Your task to perform on an android device: Search for seafood restaurants on Google Maps Image 0: 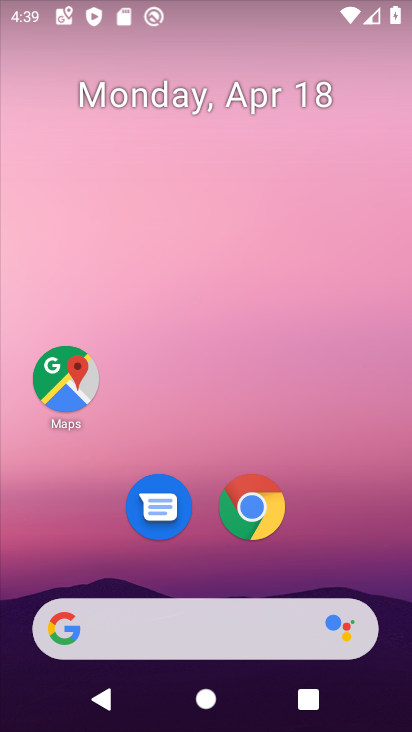
Step 0: drag from (306, 593) to (298, 74)
Your task to perform on an android device: Search for seafood restaurants on Google Maps Image 1: 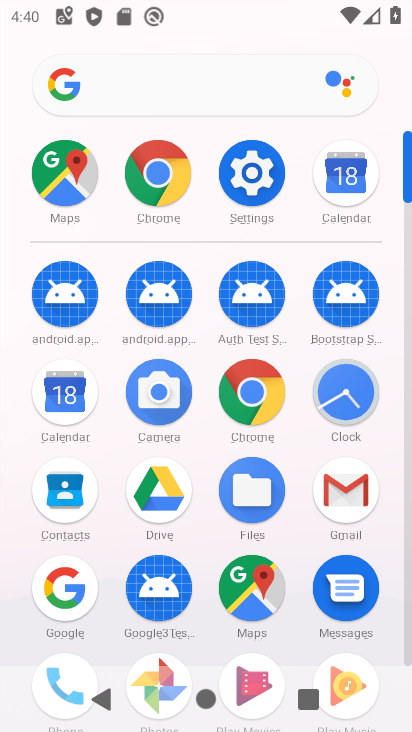
Step 1: click (268, 592)
Your task to perform on an android device: Search for seafood restaurants on Google Maps Image 2: 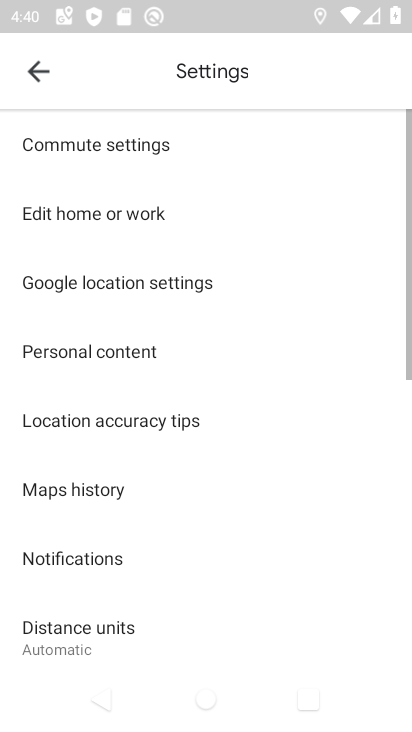
Step 2: click (39, 75)
Your task to perform on an android device: Search for seafood restaurants on Google Maps Image 3: 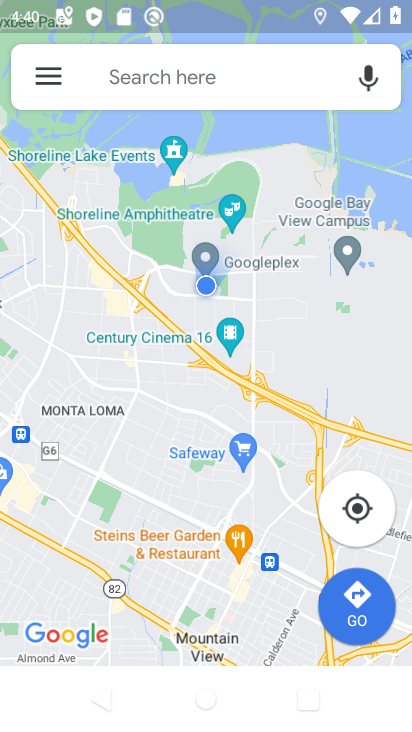
Step 3: click (205, 87)
Your task to perform on an android device: Search for seafood restaurants on Google Maps Image 4: 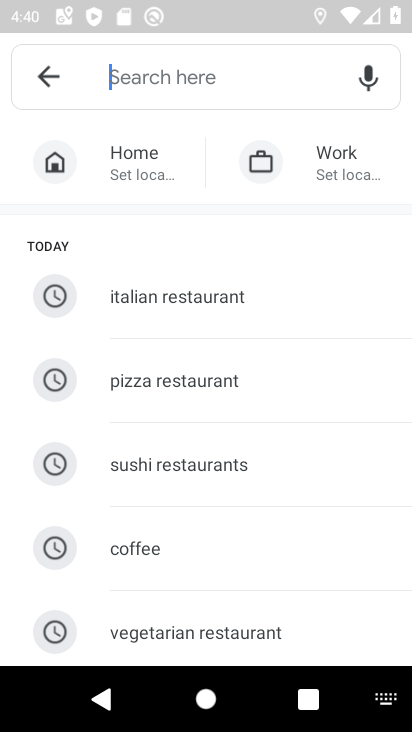
Step 4: type "seafood restaurant"
Your task to perform on an android device: Search for seafood restaurants on Google Maps Image 5: 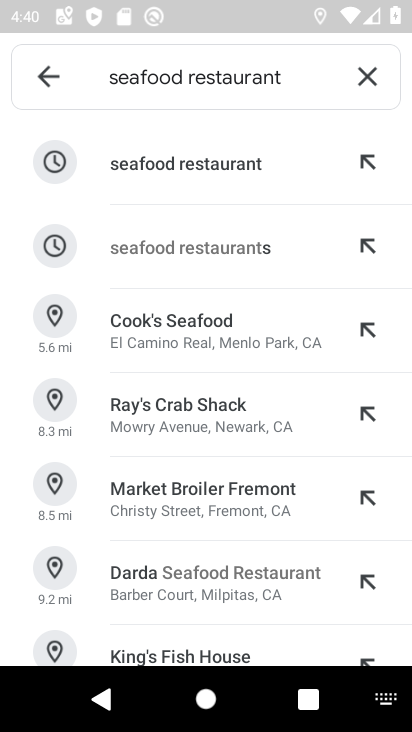
Step 5: click (246, 181)
Your task to perform on an android device: Search for seafood restaurants on Google Maps Image 6: 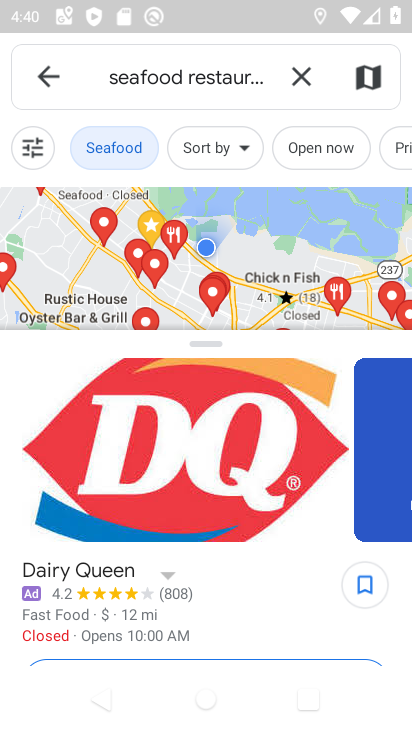
Step 6: task complete